Your task to perform on an android device: Open Chrome and go to settings Image 0: 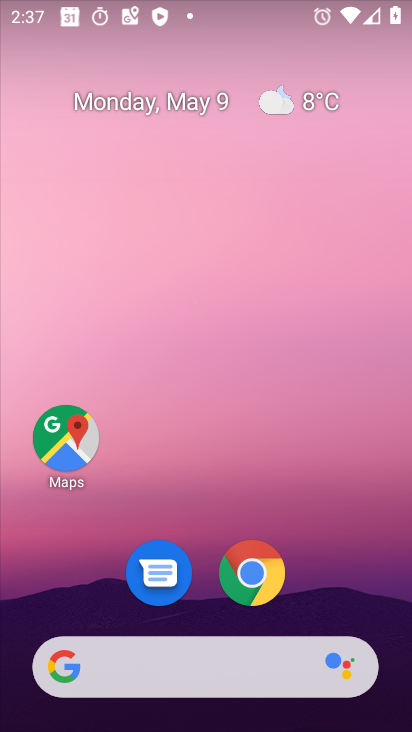
Step 0: click (251, 582)
Your task to perform on an android device: Open Chrome and go to settings Image 1: 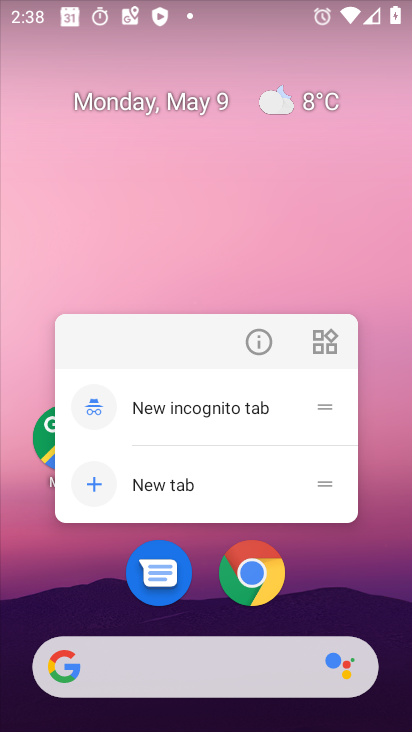
Step 1: click (244, 582)
Your task to perform on an android device: Open Chrome and go to settings Image 2: 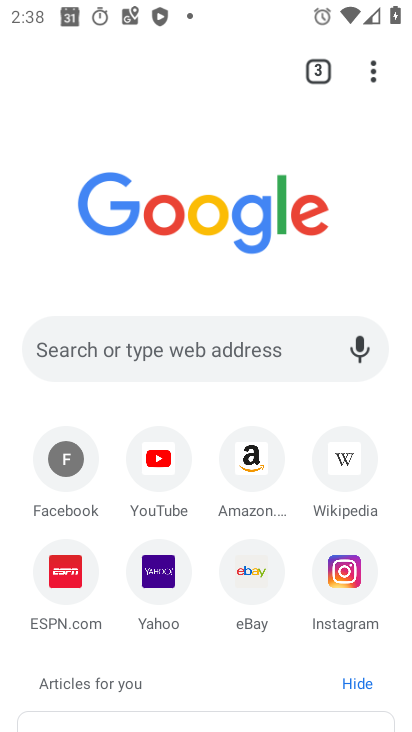
Step 2: task complete